Your task to perform on an android device: Search for sushi restaurants on Maps Image 0: 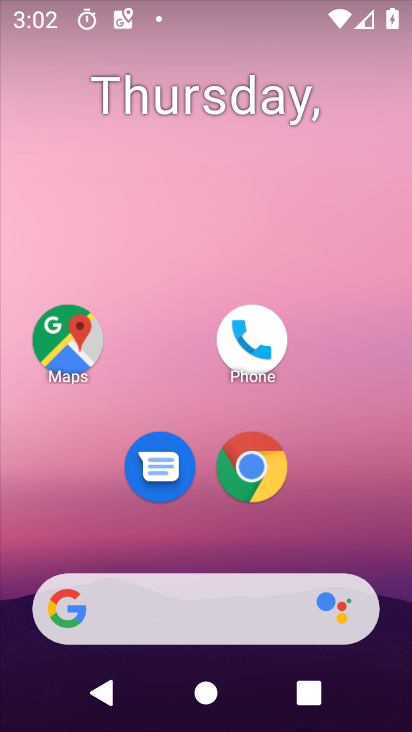
Step 0: drag from (213, 529) to (200, 116)
Your task to perform on an android device: Search for sushi restaurants on Maps Image 1: 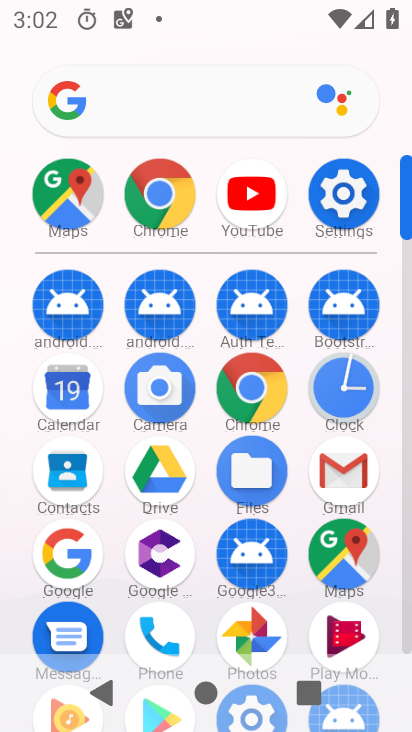
Step 1: drag from (205, 666) to (217, 258)
Your task to perform on an android device: Search for sushi restaurants on Maps Image 2: 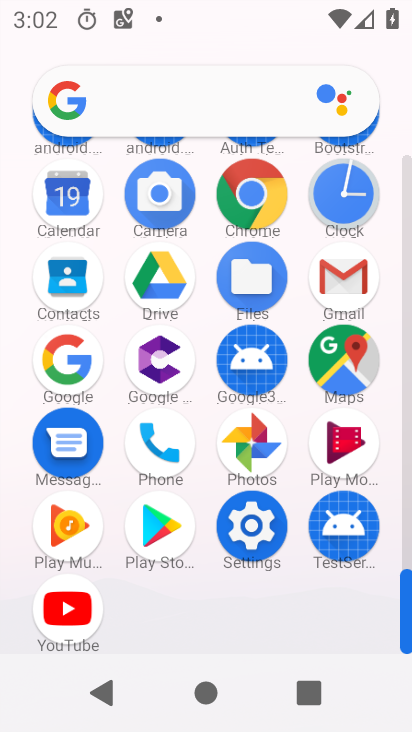
Step 2: drag from (194, 576) to (192, 267)
Your task to perform on an android device: Search for sushi restaurants on Maps Image 3: 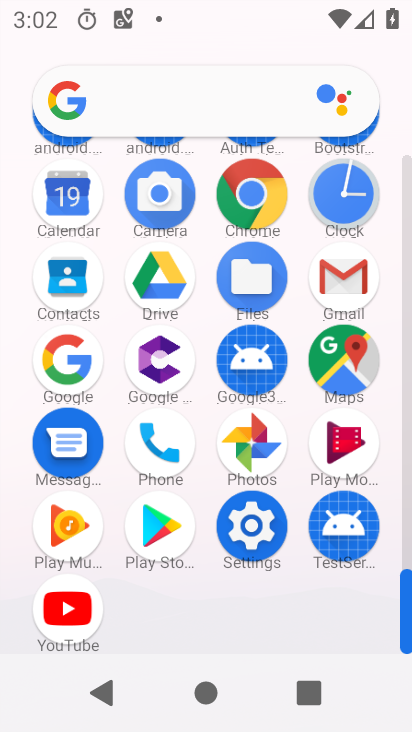
Step 3: click (347, 337)
Your task to perform on an android device: Search for sushi restaurants on Maps Image 4: 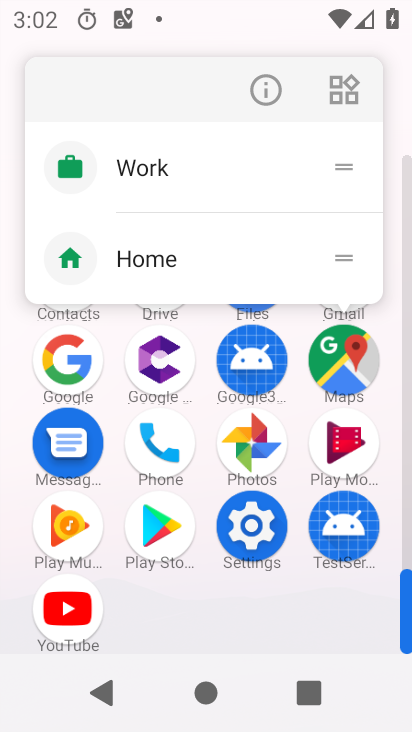
Step 4: click (278, 99)
Your task to perform on an android device: Search for sushi restaurants on Maps Image 5: 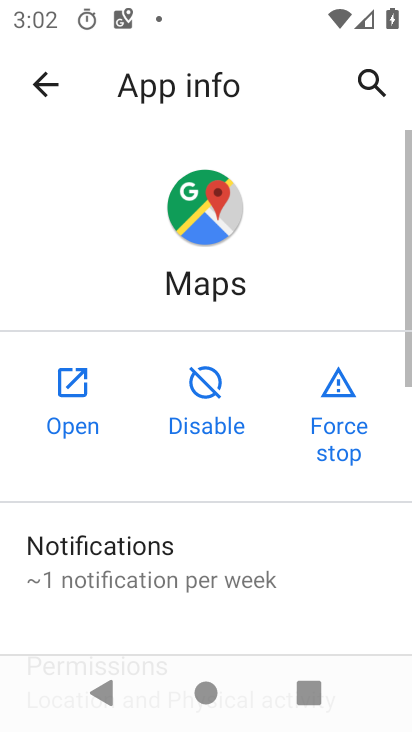
Step 5: click (70, 395)
Your task to perform on an android device: Search for sushi restaurants on Maps Image 6: 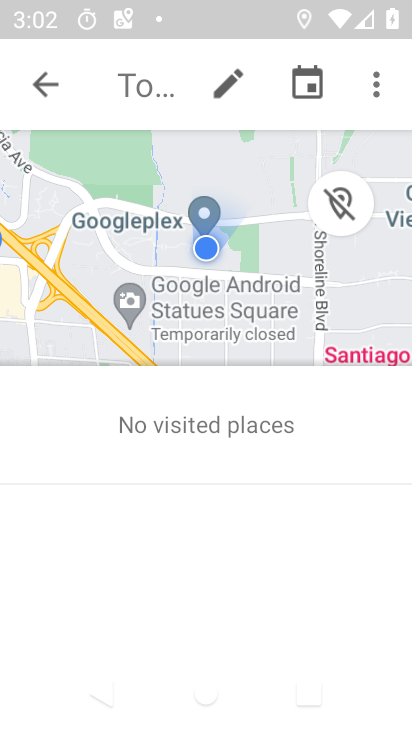
Step 6: drag from (195, 471) to (193, 218)
Your task to perform on an android device: Search for sushi restaurants on Maps Image 7: 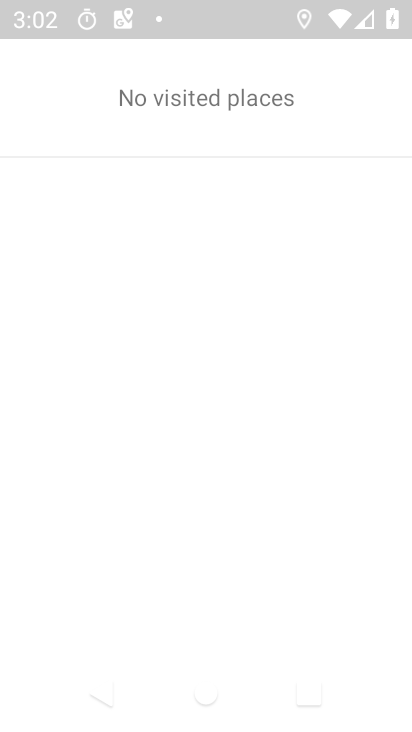
Step 7: drag from (62, 104) to (173, 550)
Your task to perform on an android device: Search for sushi restaurants on Maps Image 8: 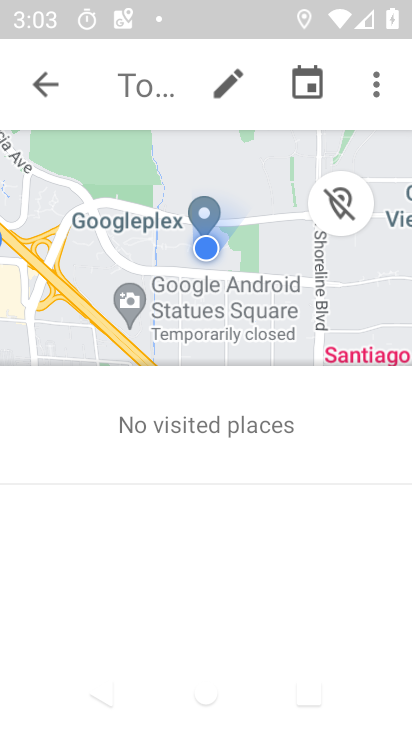
Step 8: click (30, 79)
Your task to perform on an android device: Search for sushi restaurants on Maps Image 9: 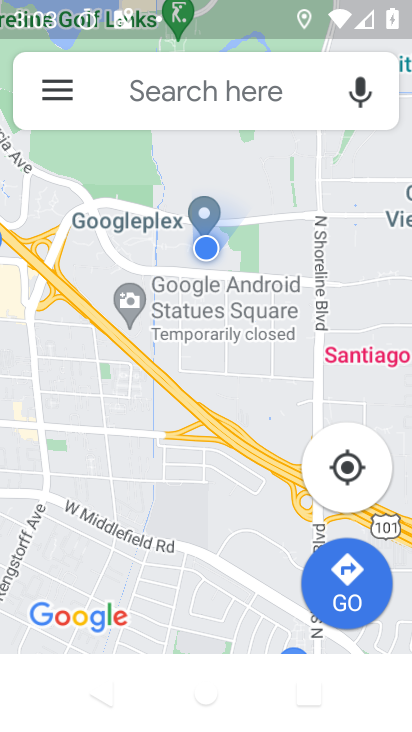
Step 9: click (164, 84)
Your task to perform on an android device: Search for sushi restaurants on Maps Image 10: 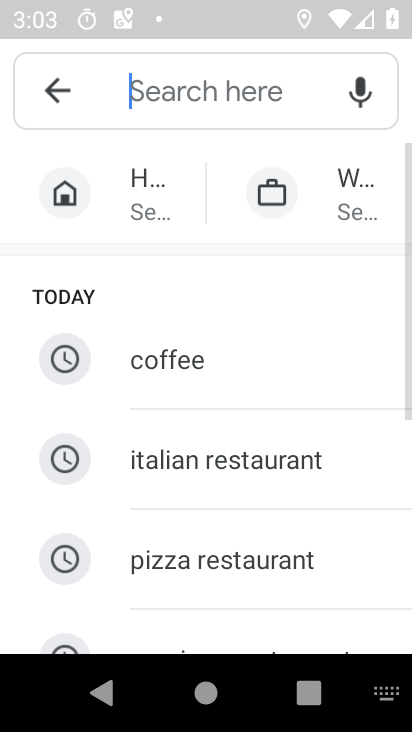
Step 10: drag from (202, 544) to (215, 191)
Your task to perform on an android device: Search for sushi restaurants on Maps Image 11: 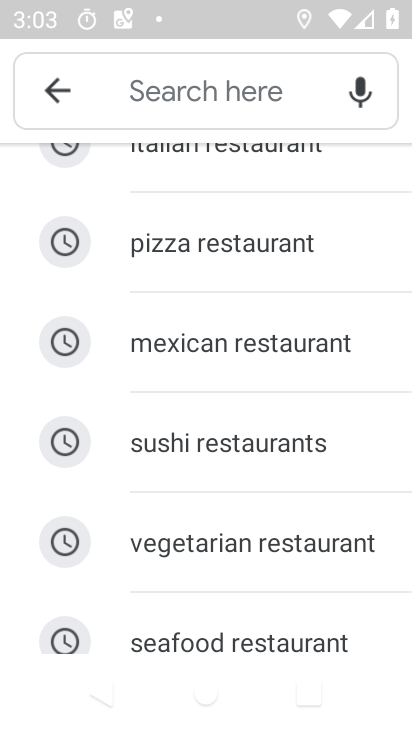
Step 11: click (184, 456)
Your task to perform on an android device: Search for sushi restaurants on Maps Image 12: 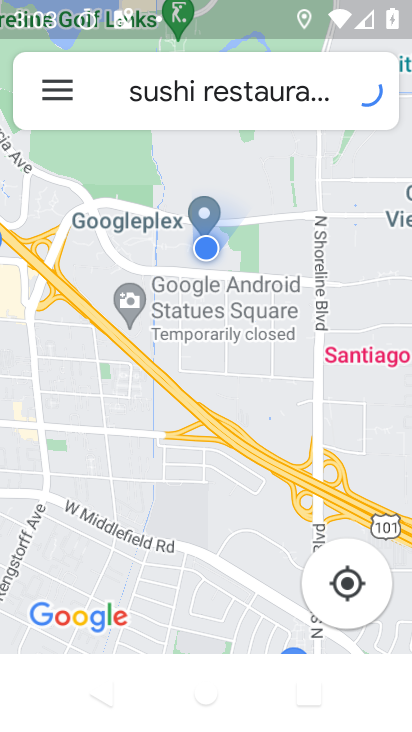
Step 12: task complete